Your task to perform on an android device: clear all cookies in the chrome app Image 0: 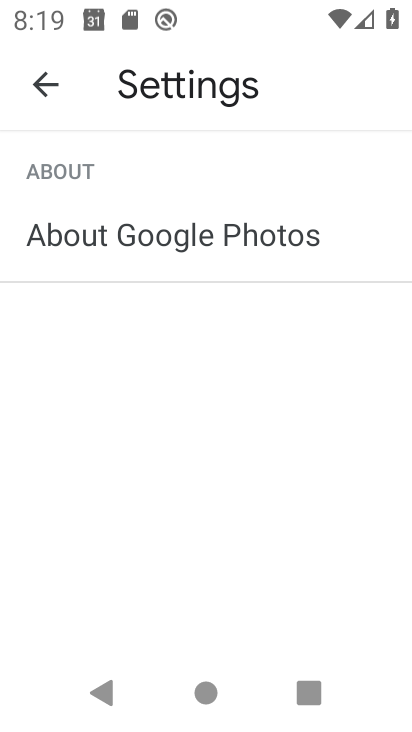
Step 0: press home button
Your task to perform on an android device: clear all cookies in the chrome app Image 1: 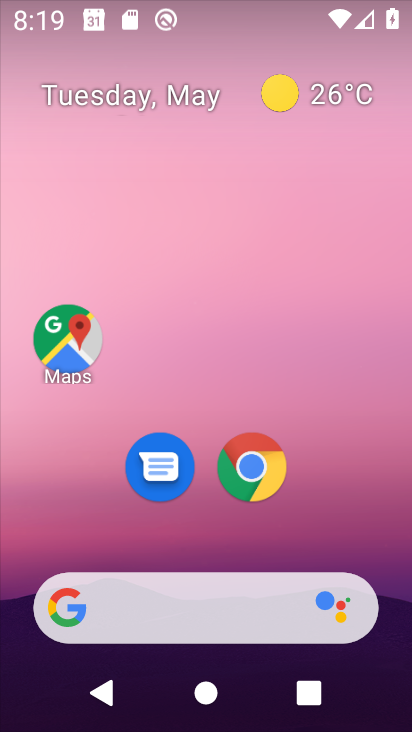
Step 1: click (261, 463)
Your task to perform on an android device: clear all cookies in the chrome app Image 2: 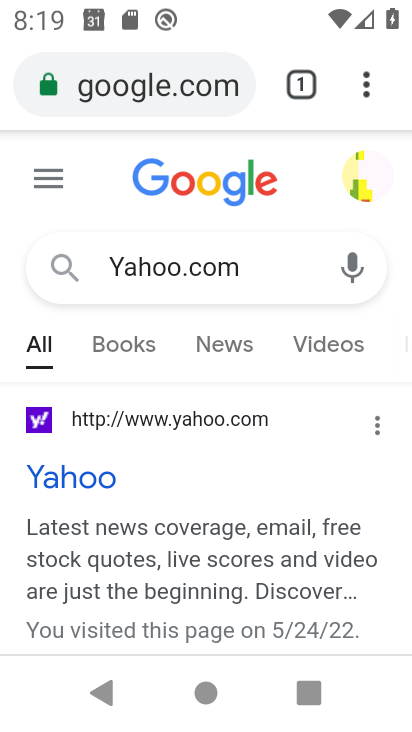
Step 2: click (372, 86)
Your task to perform on an android device: clear all cookies in the chrome app Image 3: 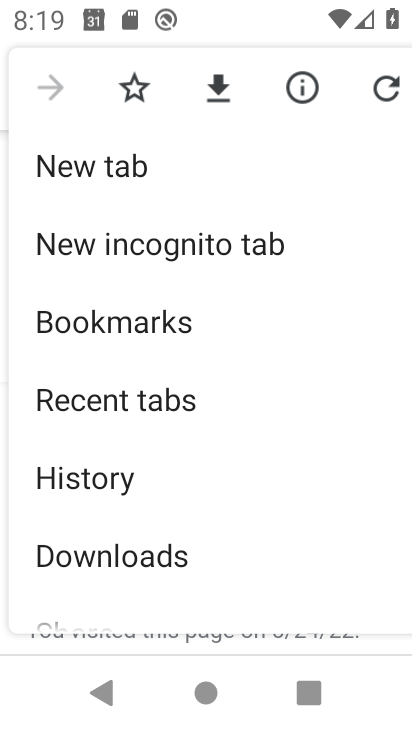
Step 3: drag from (230, 594) to (247, 387)
Your task to perform on an android device: clear all cookies in the chrome app Image 4: 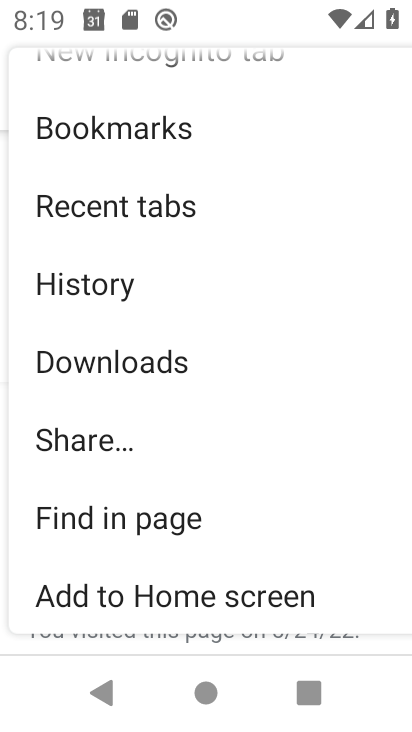
Step 4: drag from (311, 556) to (292, 319)
Your task to perform on an android device: clear all cookies in the chrome app Image 5: 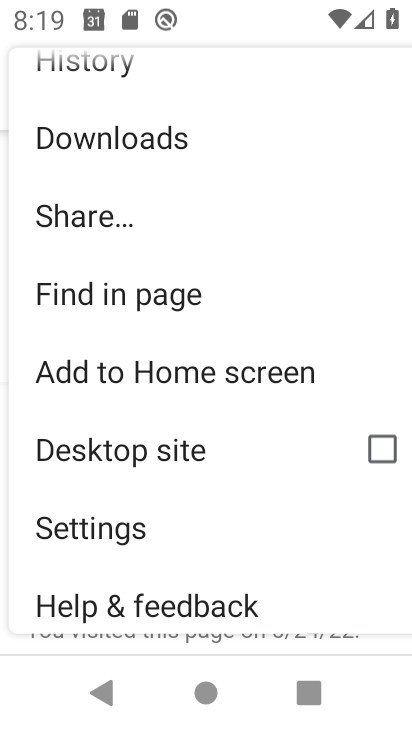
Step 5: click (107, 535)
Your task to perform on an android device: clear all cookies in the chrome app Image 6: 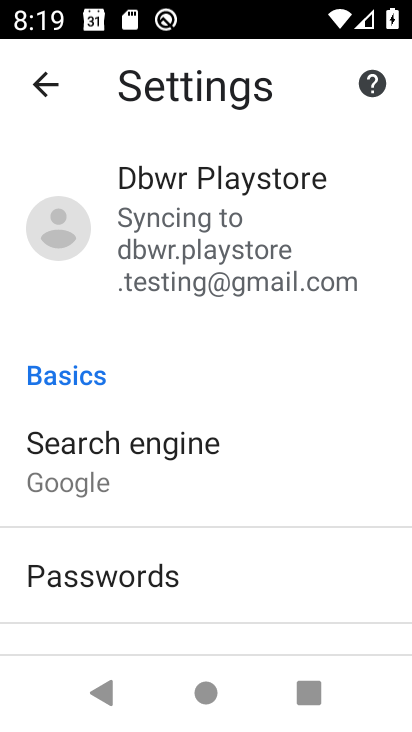
Step 6: drag from (299, 593) to (304, 358)
Your task to perform on an android device: clear all cookies in the chrome app Image 7: 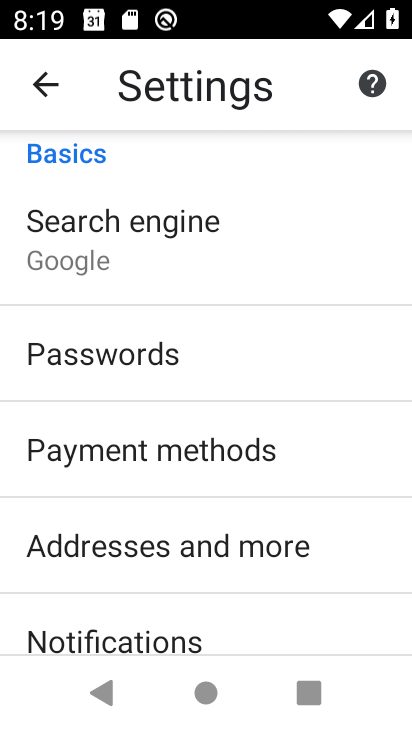
Step 7: drag from (289, 628) to (292, 465)
Your task to perform on an android device: clear all cookies in the chrome app Image 8: 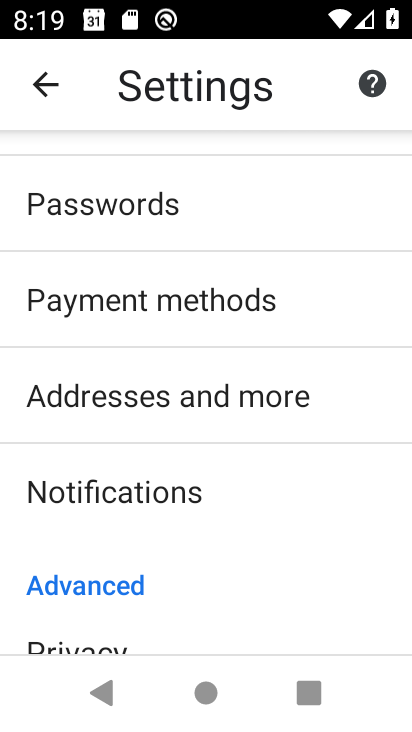
Step 8: drag from (259, 636) to (254, 457)
Your task to perform on an android device: clear all cookies in the chrome app Image 9: 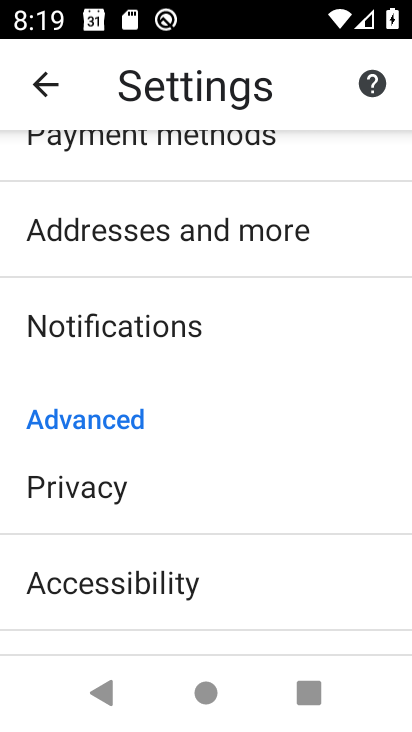
Step 9: drag from (295, 604) to (290, 367)
Your task to perform on an android device: clear all cookies in the chrome app Image 10: 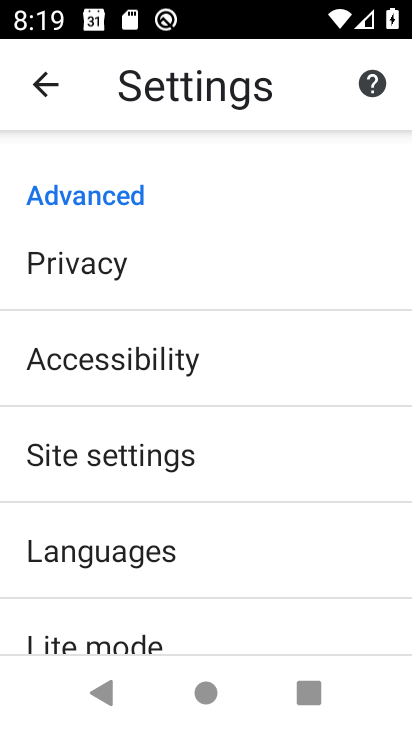
Step 10: drag from (285, 255) to (313, 584)
Your task to perform on an android device: clear all cookies in the chrome app Image 11: 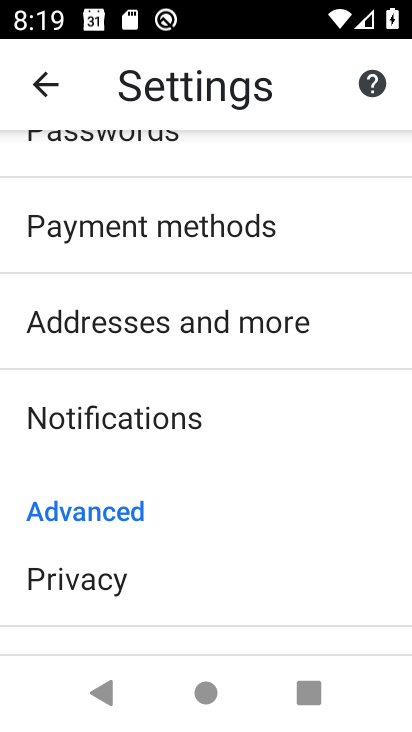
Step 11: drag from (266, 243) to (290, 552)
Your task to perform on an android device: clear all cookies in the chrome app Image 12: 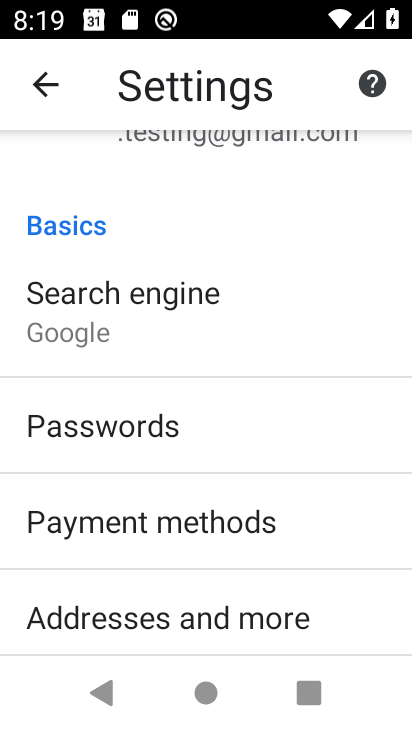
Step 12: click (42, 79)
Your task to perform on an android device: clear all cookies in the chrome app Image 13: 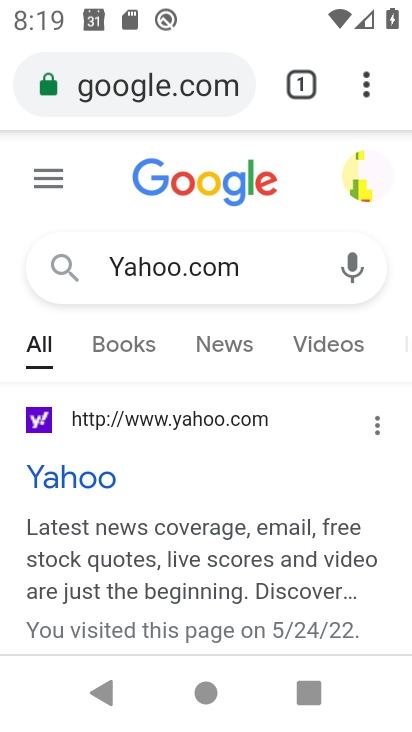
Step 13: click (369, 79)
Your task to perform on an android device: clear all cookies in the chrome app Image 14: 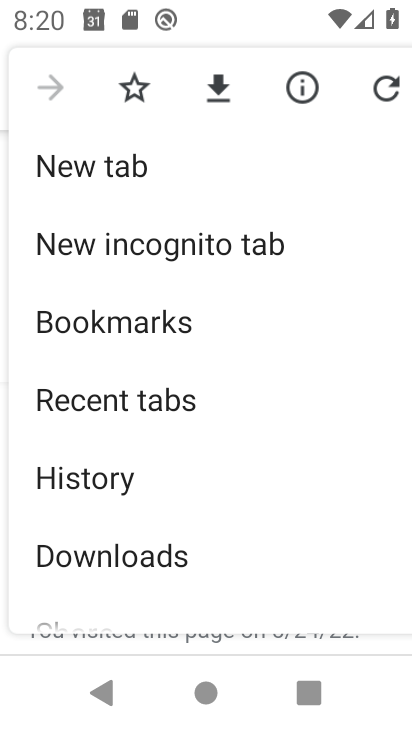
Step 14: click (72, 491)
Your task to perform on an android device: clear all cookies in the chrome app Image 15: 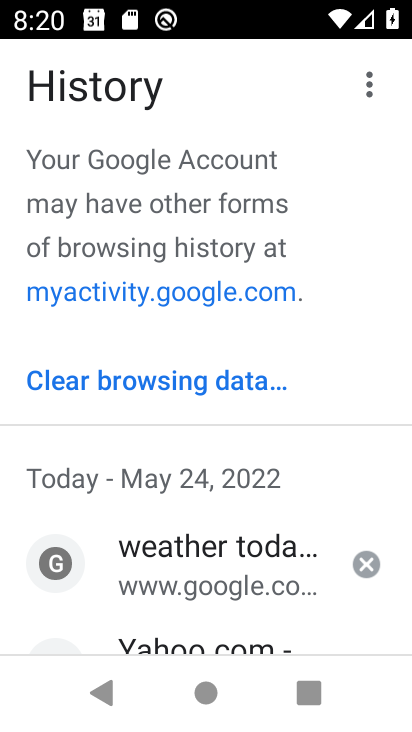
Step 15: click (128, 390)
Your task to perform on an android device: clear all cookies in the chrome app Image 16: 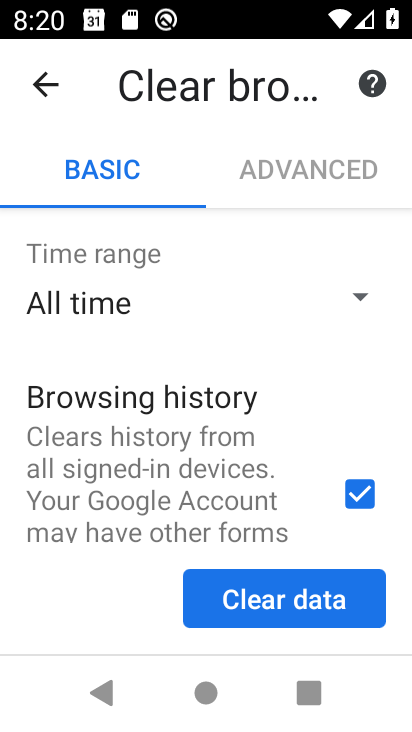
Step 16: click (267, 593)
Your task to perform on an android device: clear all cookies in the chrome app Image 17: 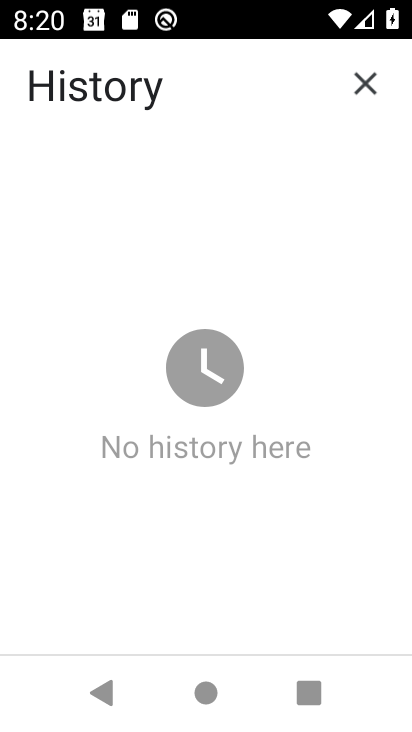
Step 17: task complete